Your task to perform on an android device: When is my next appointment? Image 0: 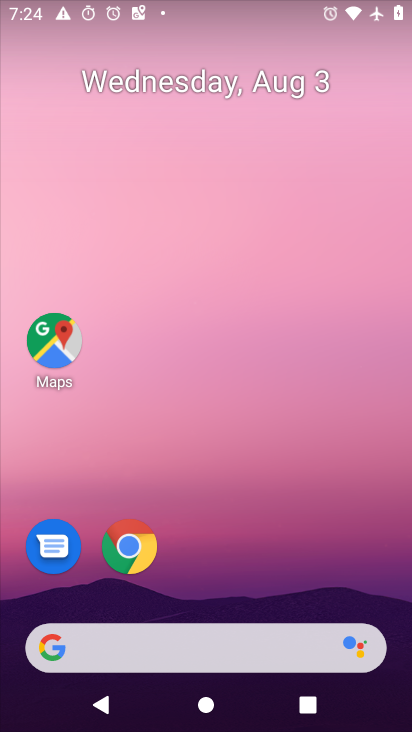
Step 0: press home button
Your task to perform on an android device: When is my next appointment? Image 1: 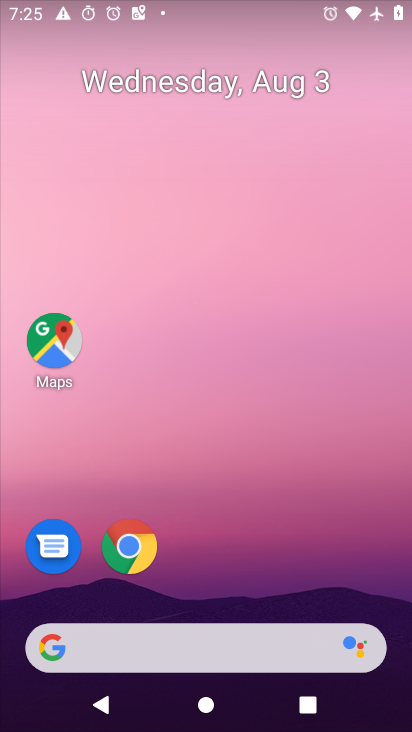
Step 1: drag from (213, 607) to (205, 100)
Your task to perform on an android device: When is my next appointment? Image 2: 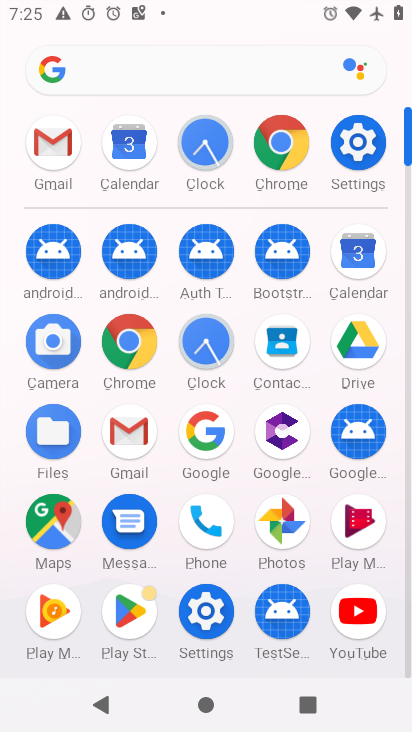
Step 2: click (356, 262)
Your task to perform on an android device: When is my next appointment? Image 3: 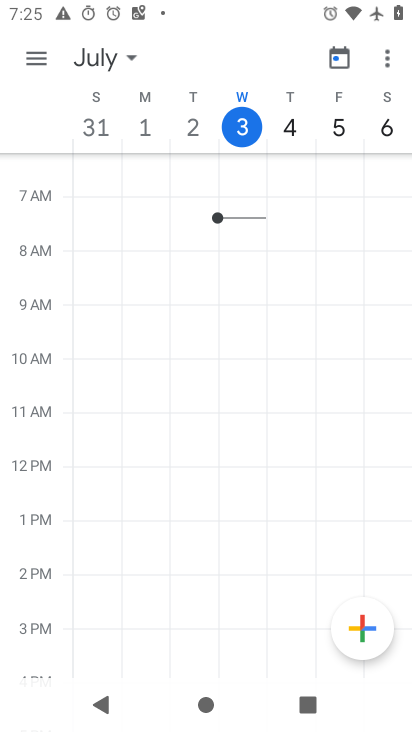
Step 3: click (36, 50)
Your task to perform on an android device: When is my next appointment? Image 4: 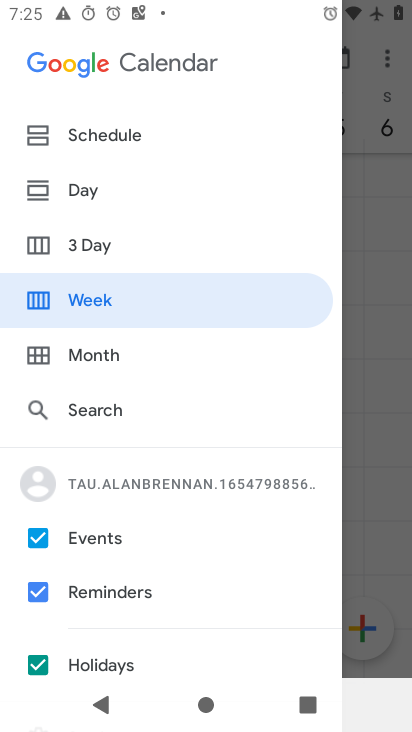
Step 4: click (102, 136)
Your task to perform on an android device: When is my next appointment? Image 5: 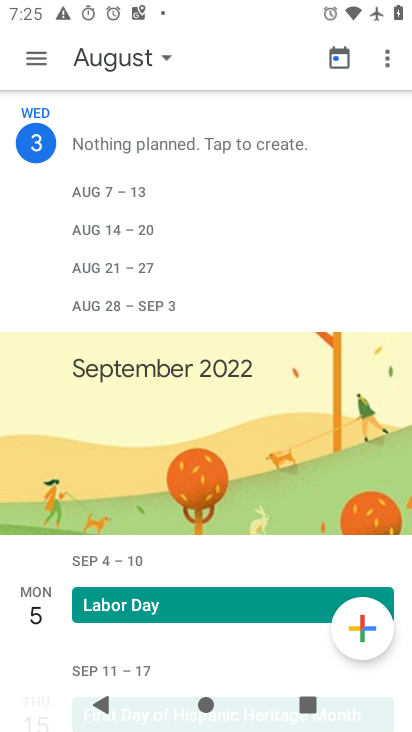
Step 5: task complete